Your task to perform on an android device: Open settings on Google Maps Image 0: 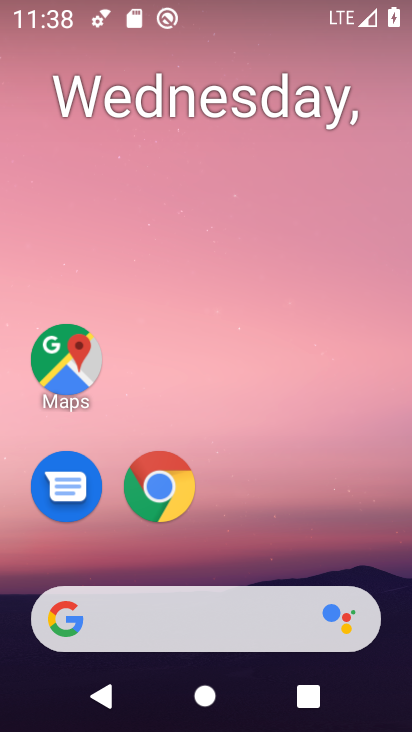
Step 0: drag from (332, 527) to (334, 319)
Your task to perform on an android device: Open settings on Google Maps Image 1: 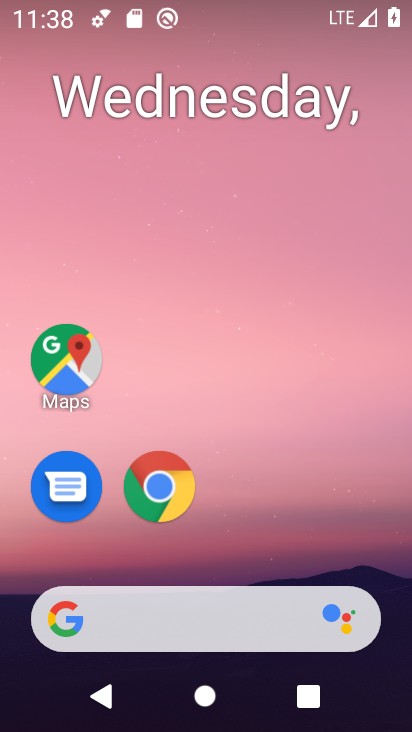
Step 1: drag from (323, 462) to (337, 75)
Your task to perform on an android device: Open settings on Google Maps Image 2: 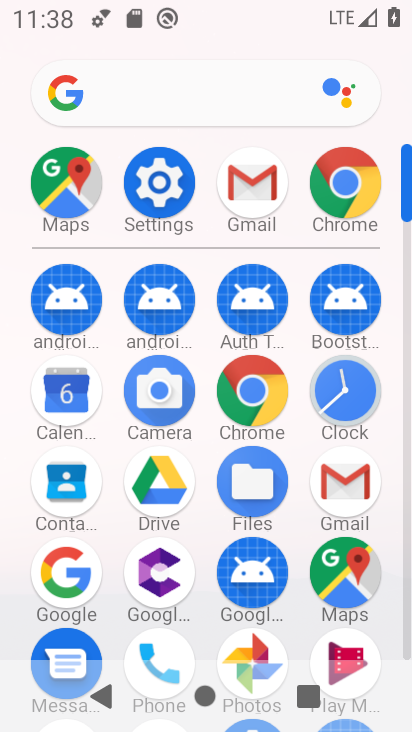
Step 2: click (344, 568)
Your task to perform on an android device: Open settings on Google Maps Image 3: 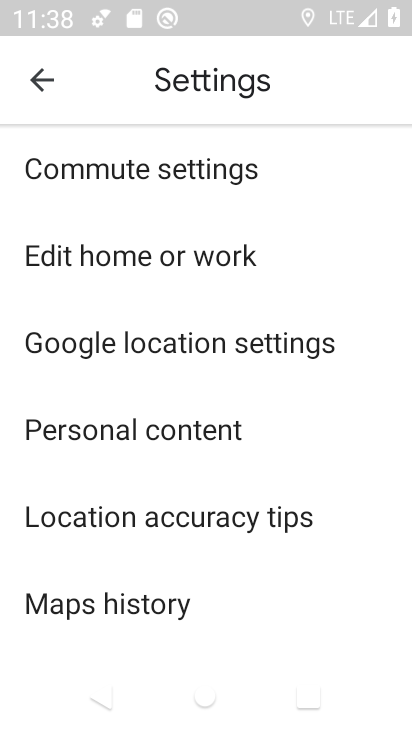
Step 3: task complete